Your task to perform on an android device: Open sound settings Image 0: 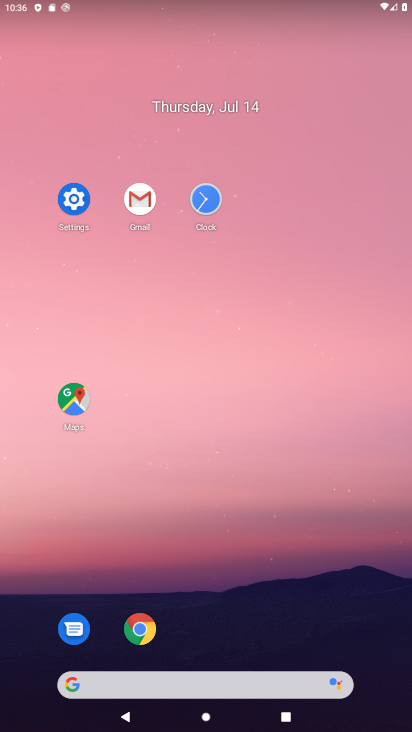
Step 0: click (76, 202)
Your task to perform on an android device: Open sound settings Image 1: 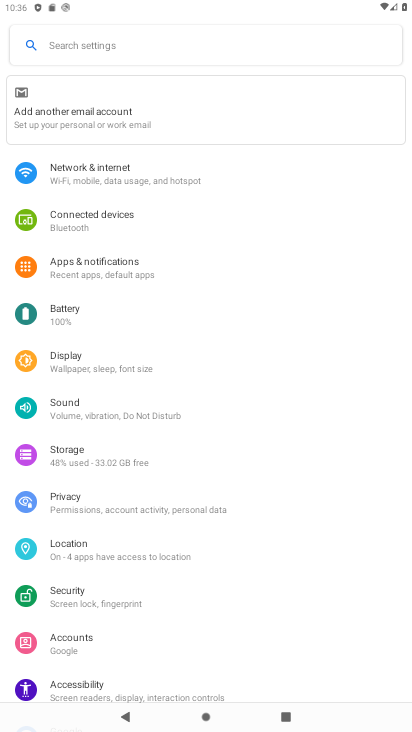
Step 1: click (127, 408)
Your task to perform on an android device: Open sound settings Image 2: 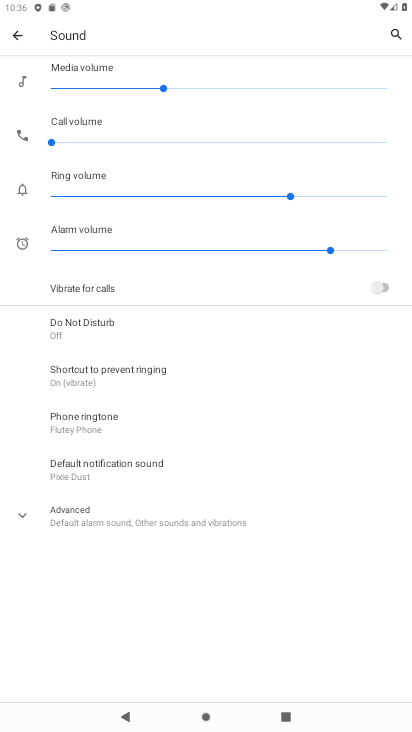
Step 2: task complete